Your task to perform on an android device: Open Chrome and go to settings Image 0: 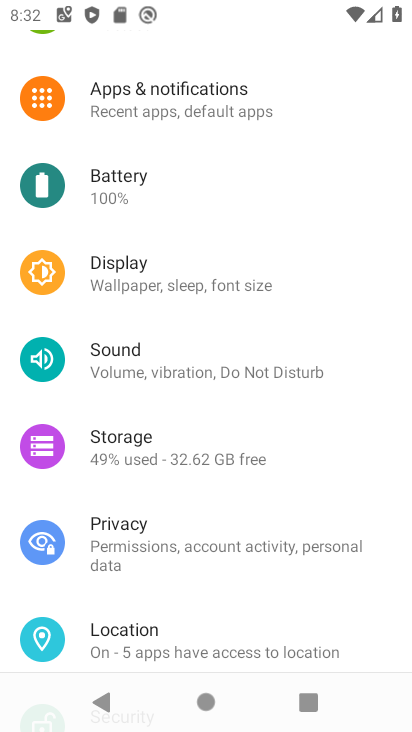
Step 0: press back button
Your task to perform on an android device: Open Chrome and go to settings Image 1: 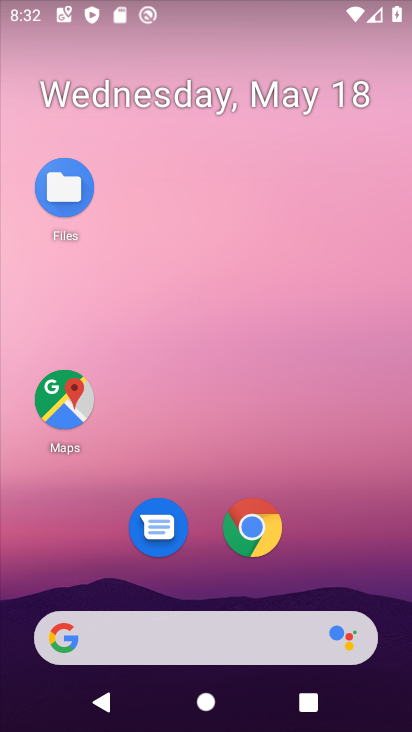
Step 1: drag from (318, 445) to (189, 178)
Your task to perform on an android device: Open Chrome and go to settings Image 2: 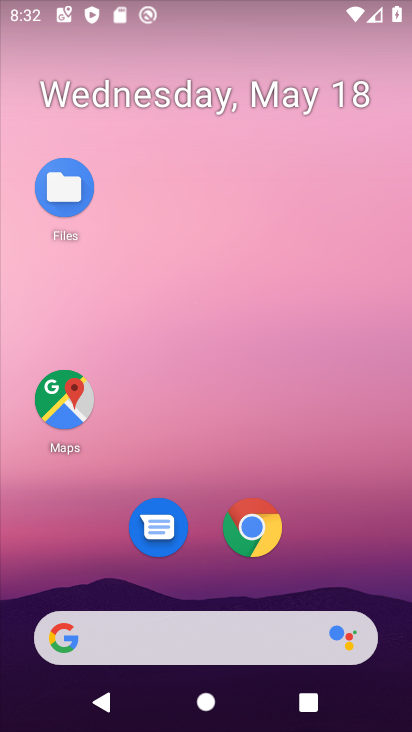
Step 2: drag from (185, 127) to (165, 95)
Your task to perform on an android device: Open Chrome and go to settings Image 3: 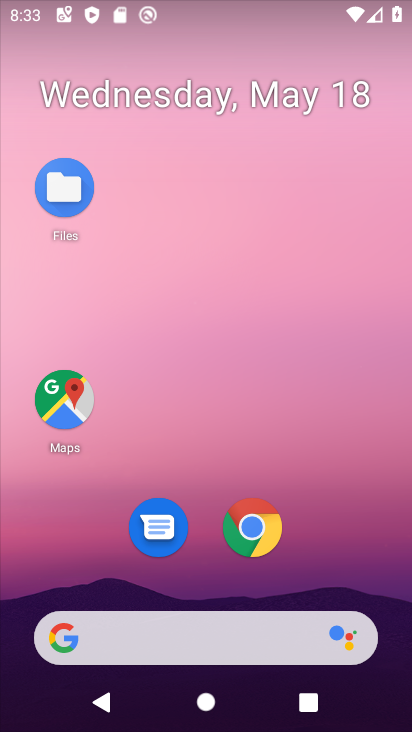
Step 3: drag from (363, 599) to (290, 133)
Your task to perform on an android device: Open Chrome and go to settings Image 4: 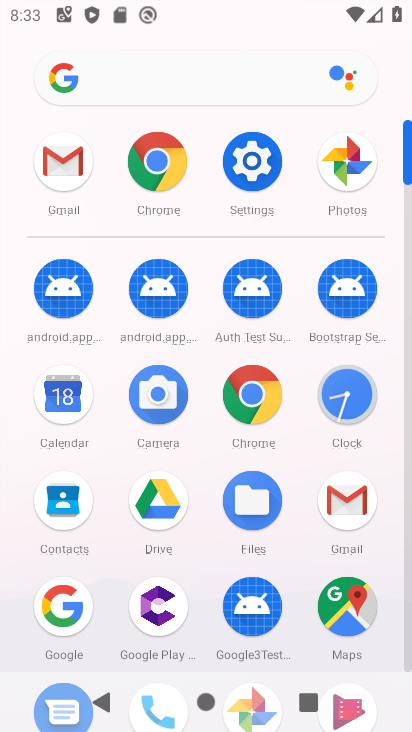
Step 4: click (158, 167)
Your task to perform on an android device: Open Chrome and go to settings Image 5: 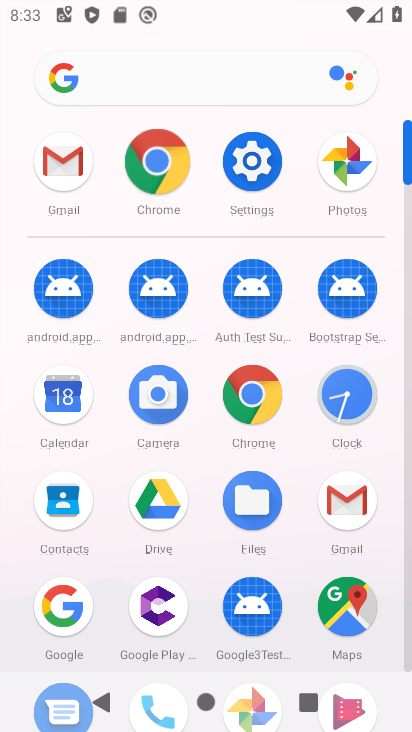
Step 5: click (158, 167)
Your task to perform on an android device: Open Chrome and go to settings Image 6: 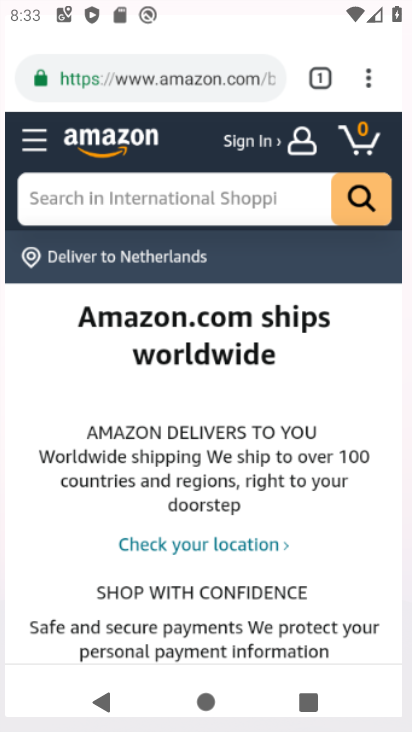
Step 6: click (159, 167)
Your task to perform on an android device: Open Chrome and go to settings Image 7: 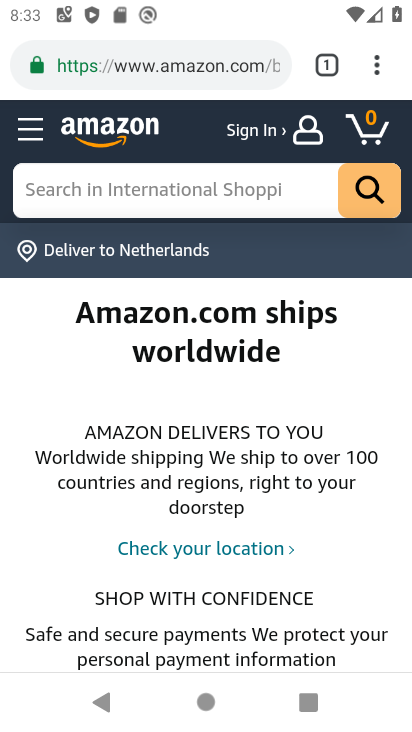
Step 7: drag from (376, 66) to (129, 575)
Your task to perform on an android device: Open Chrome and go to settings Image 8: 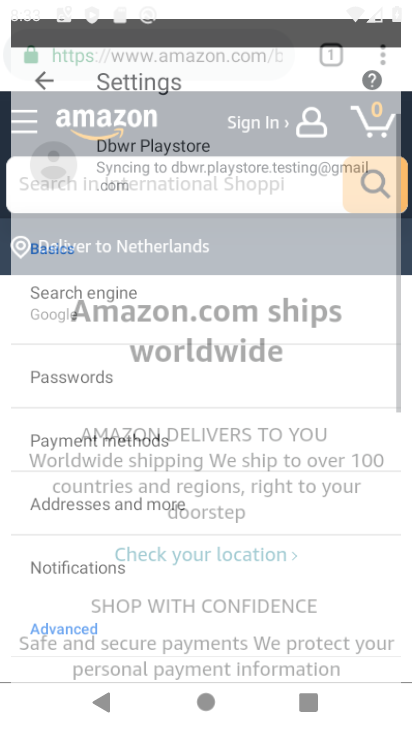
Step 8: click (130, 577)
Your task to perform on an android device: Open Chrome and go to settings Image 9: 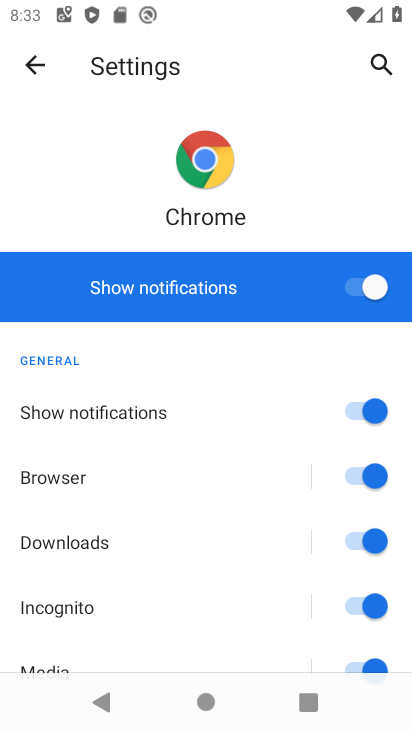
Step 9: task complete